Your task to perform on an android device: set the stopwatch Image 0: 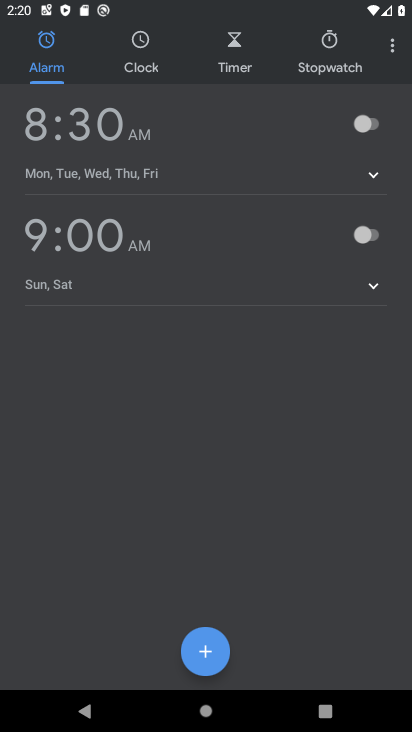
Step 0: click (336, 55)
Your task to perform on an android device: set the stopwatch Image 1: 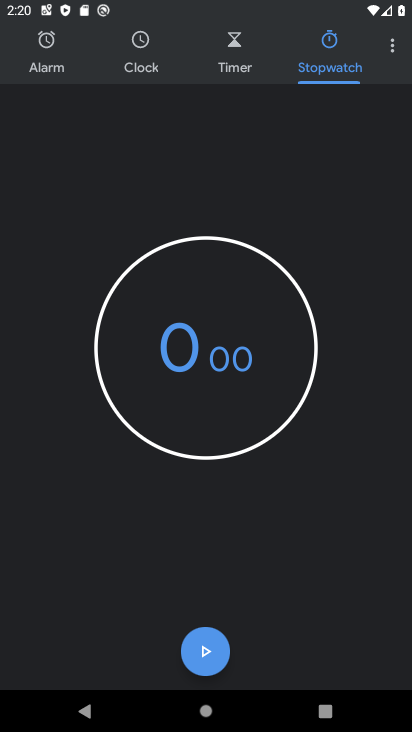
Step 1: click (195, 647)
Your task to perform on an android device: set the stopwatch Image 2: 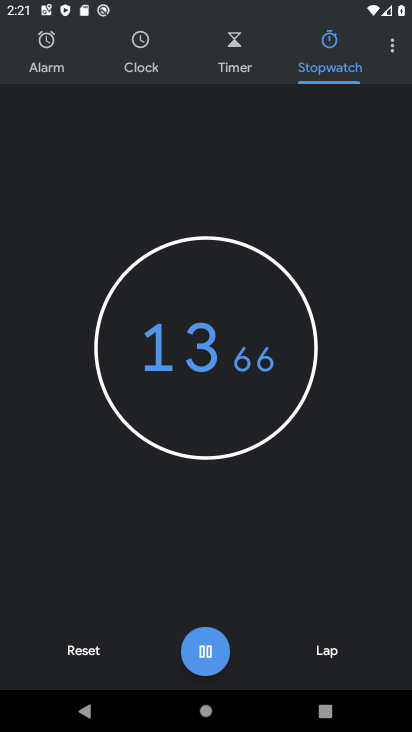
Step 2: task complete